Your task to perform on an android device: Open Google Chrome and open the bookmarks view Image 0: 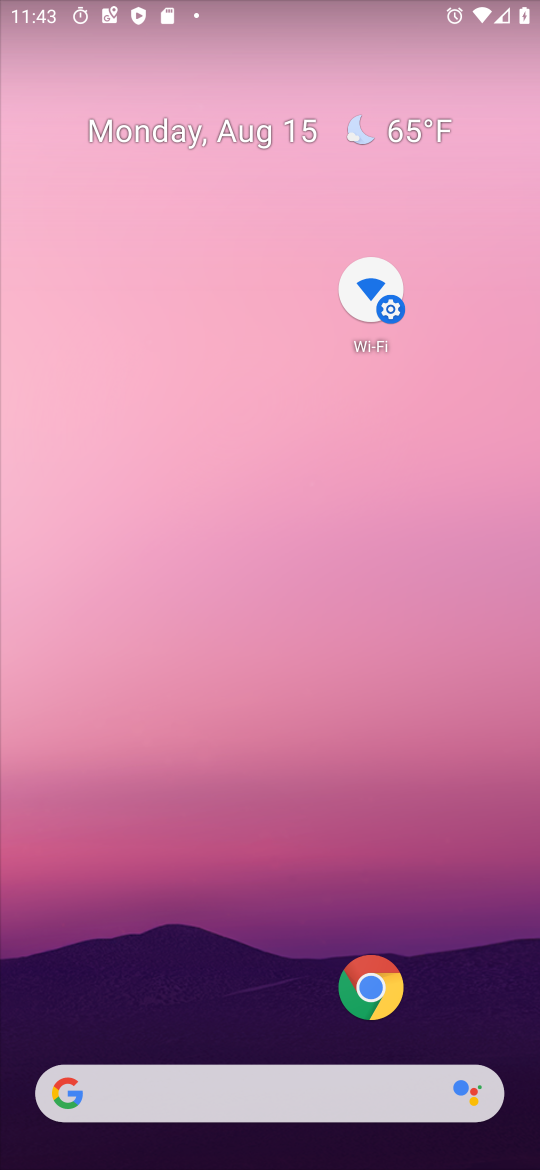
Step 0: click (349, 987)
Your task to perform on an android device: Open Google Chrome and open the bookmarks view Image 1: 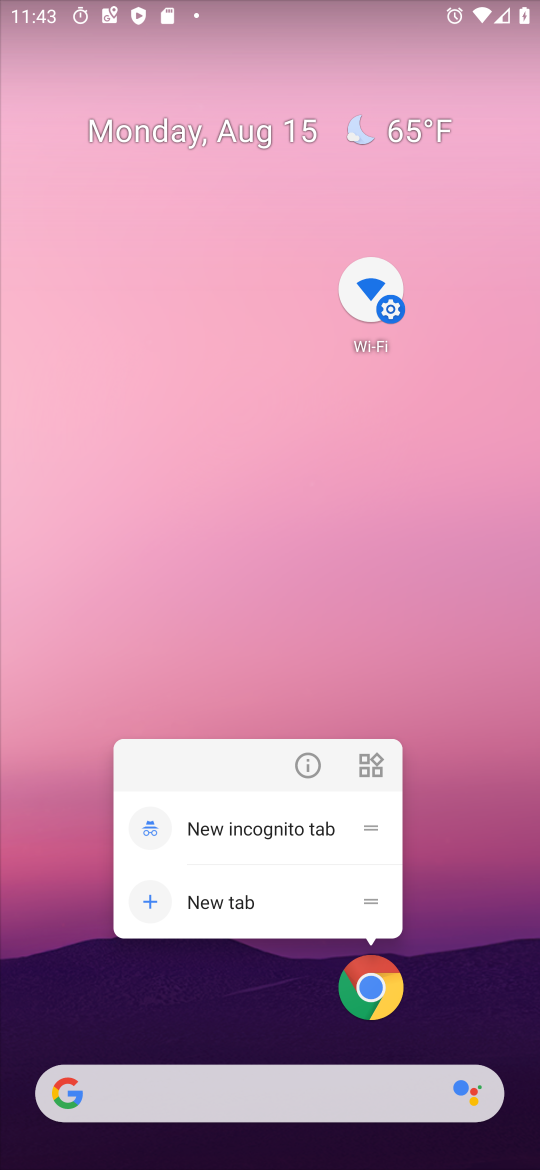
Step 1: click (377, 988)
Your task to perform on an android device: Open Google Chrome and open the bookmarks view Image 2: 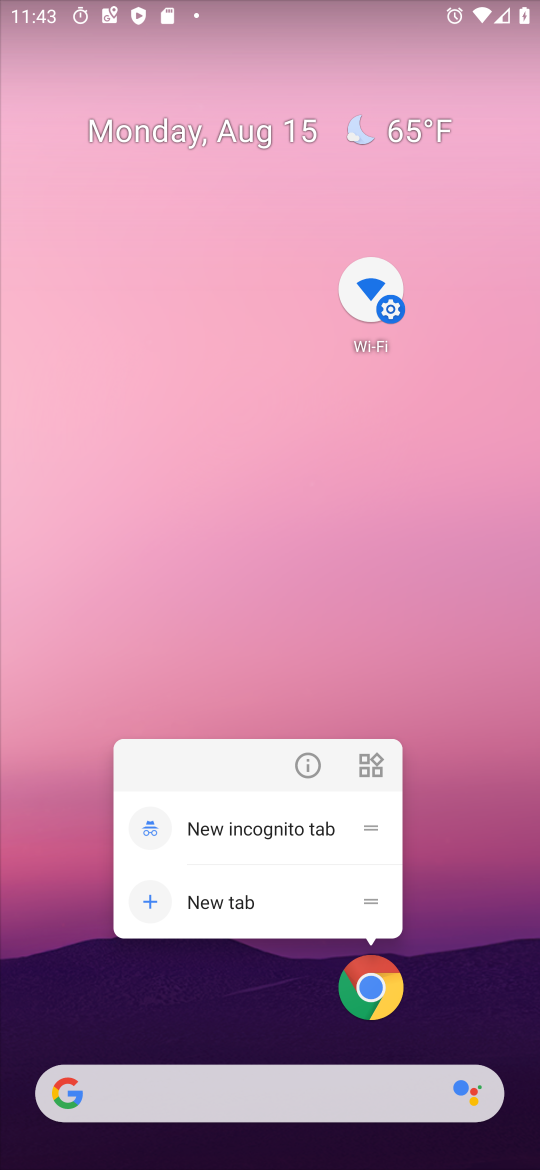
Step 2: click (399, 986)
Your task to perform on an android device: Open Google Chrome and open the bookmarks view Image 3: 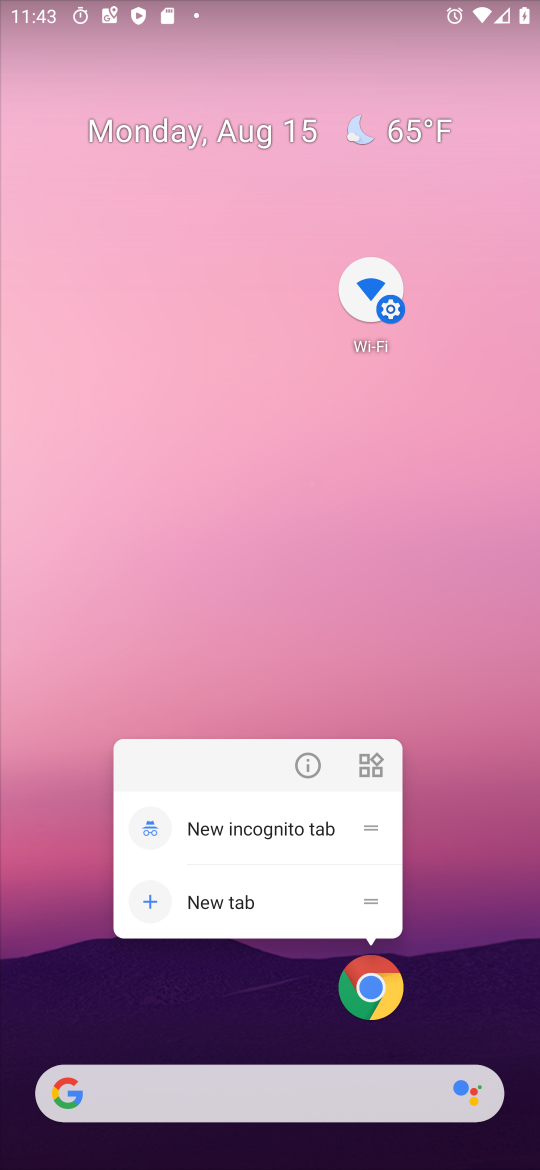
Step 3: click (391, 1000)
Your task to perform on an android device: Open Google Chrome and open the bookmarks view Image 4: 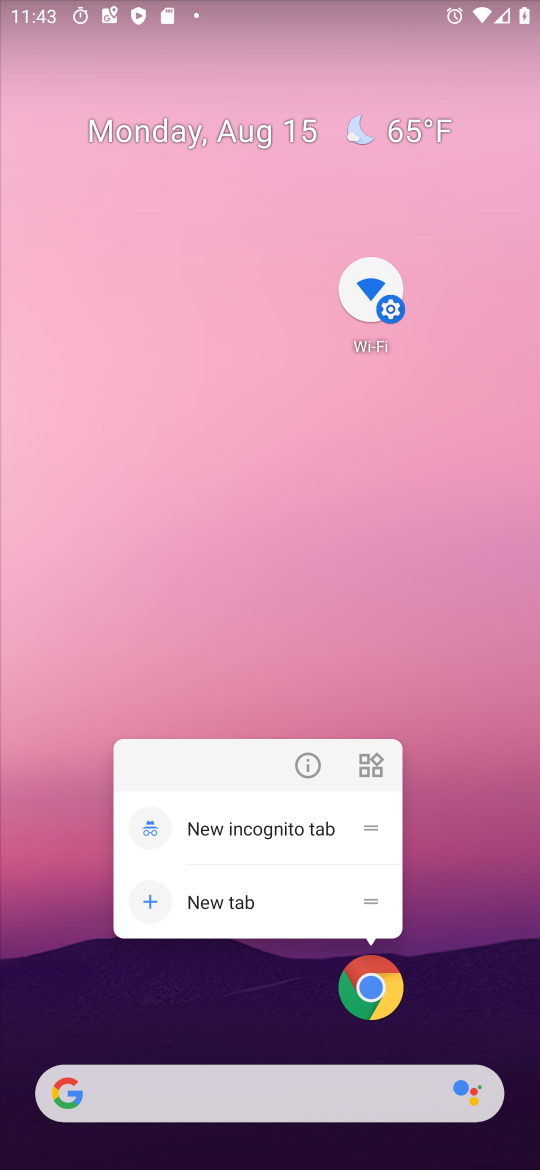
Step 4: click (389, 1001)
Your task to perform on an android device: Open Google Chrome and open the bookmarks view Image 5: 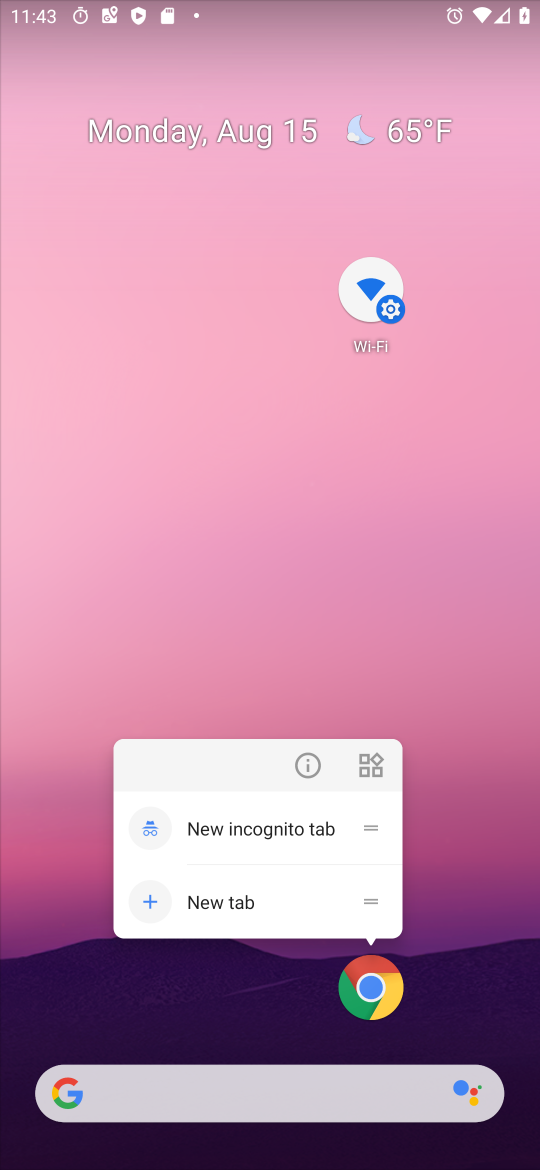
Step 5: click (371, 1001)
Your task to perform on an android device: Open Google Chrome and open the bookmarks view Image 6: 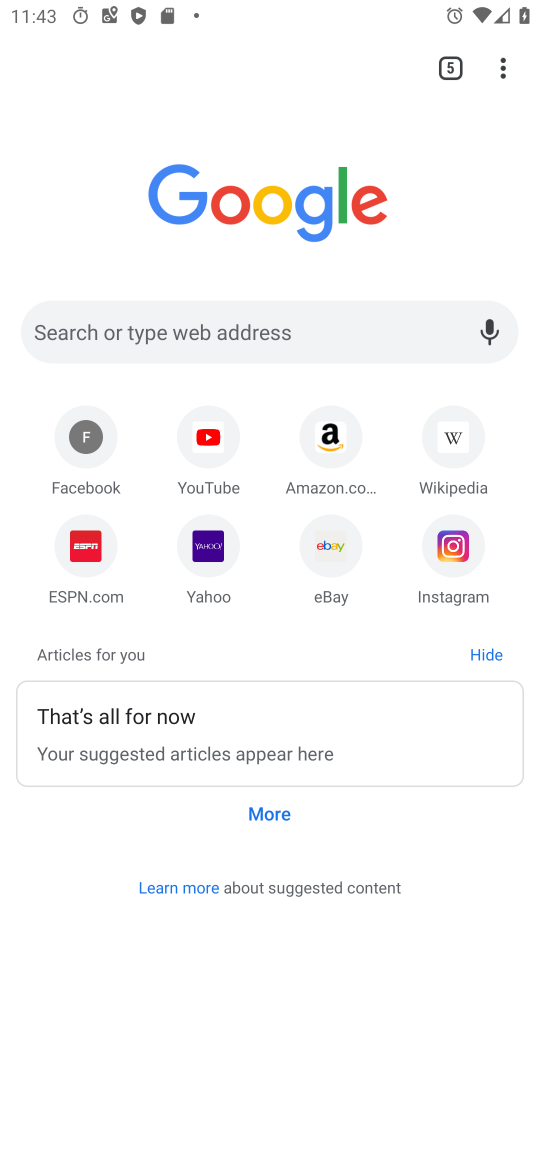
Step 6: click (494, 68)
Your task to perform on an android device: Open Google Chrome and open the bookmarks view Image 7: 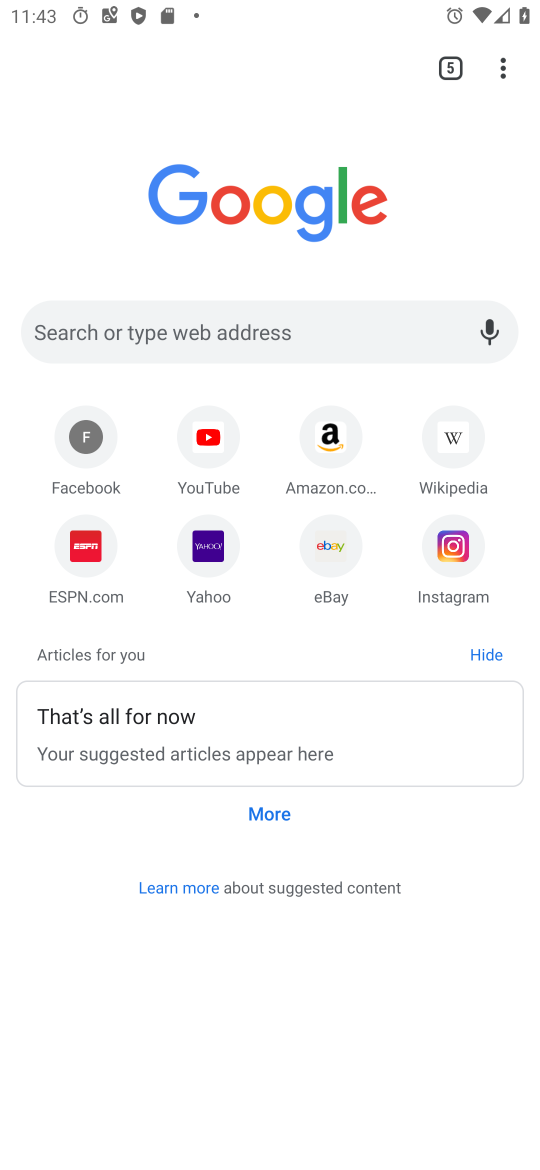
Step 7: task complete